Your task to perform on an android device: Open maps Image 0: 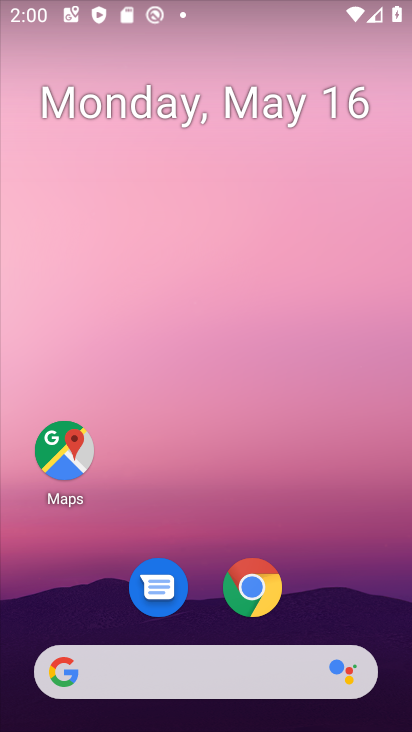
Step 0: drag from (342, 627) to (342, 150)
Your task to perform on an android device: Open maps Image 1: 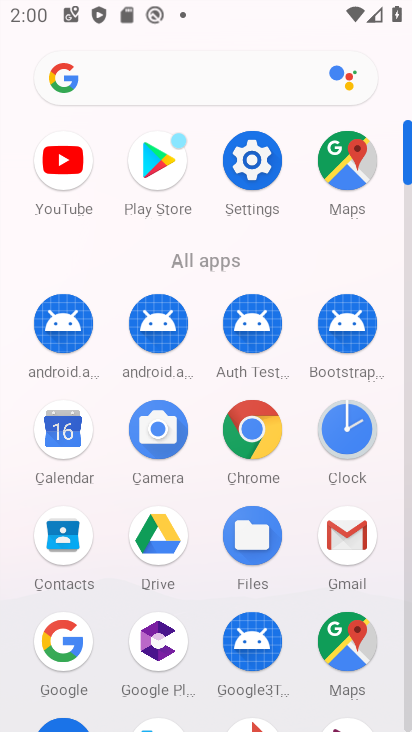
Step 1: click (339, 158)
Your task to perform on an android device: Open maps Image 2: 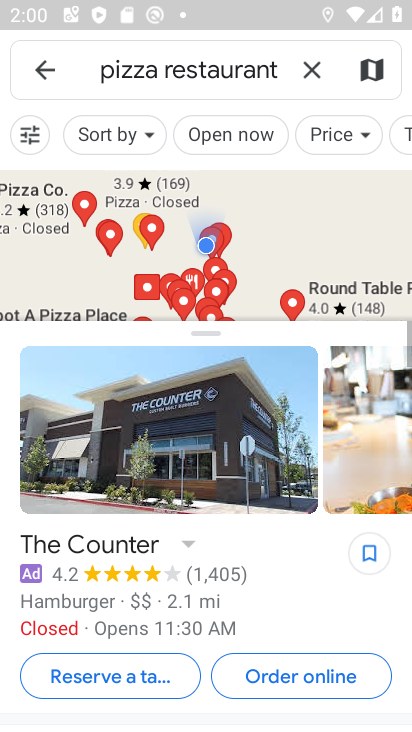
Step 2: click (40, 65)
Your task to perform on an android device: Open maps Image 3: 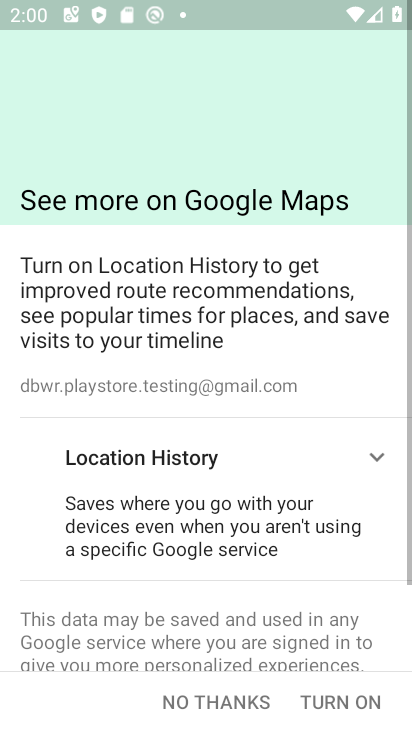
Step 3: task complete